Your task to perform on an android device: remove spam from my inbox in the gmail app Image 0: 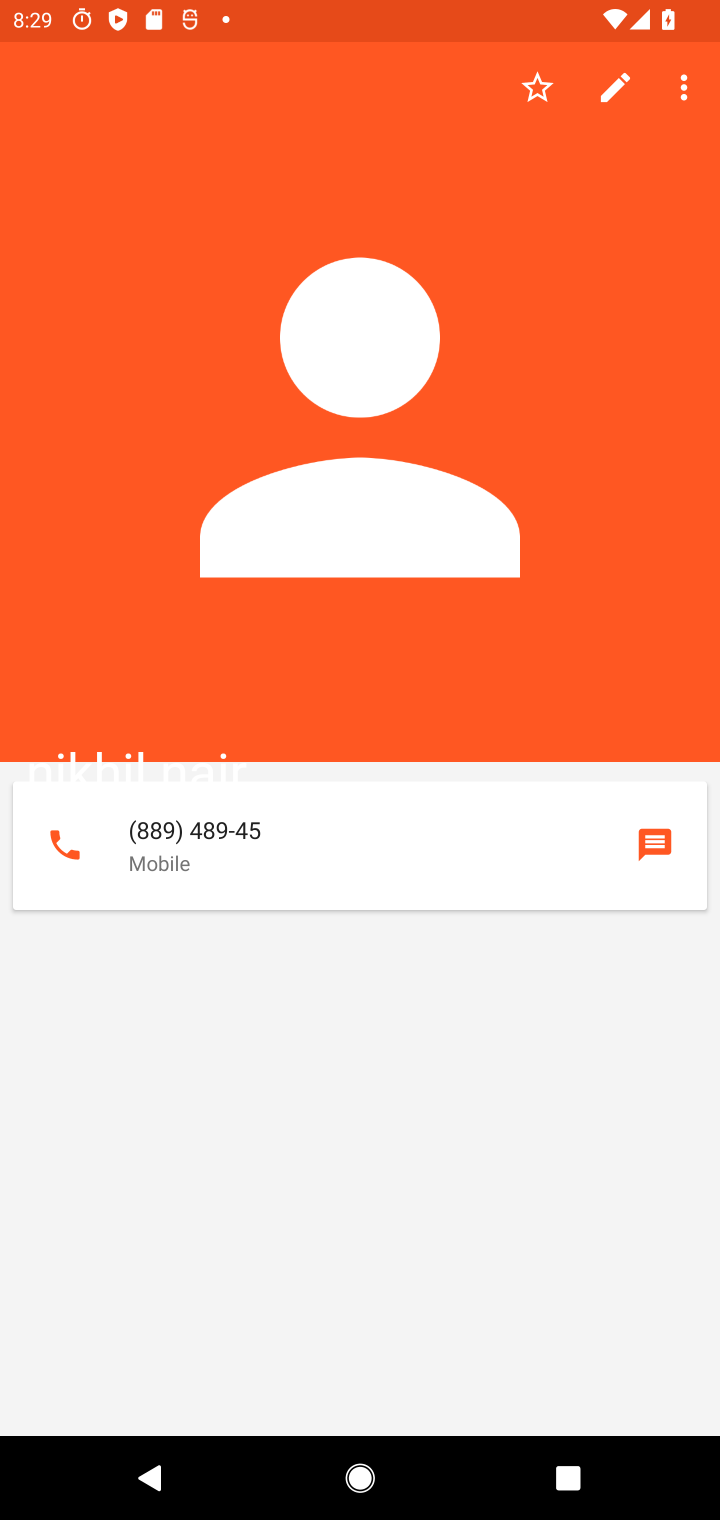
Step 0: press home button
Your task to perform on an android device: remove spam from my inbox in the gmail app Image 1: 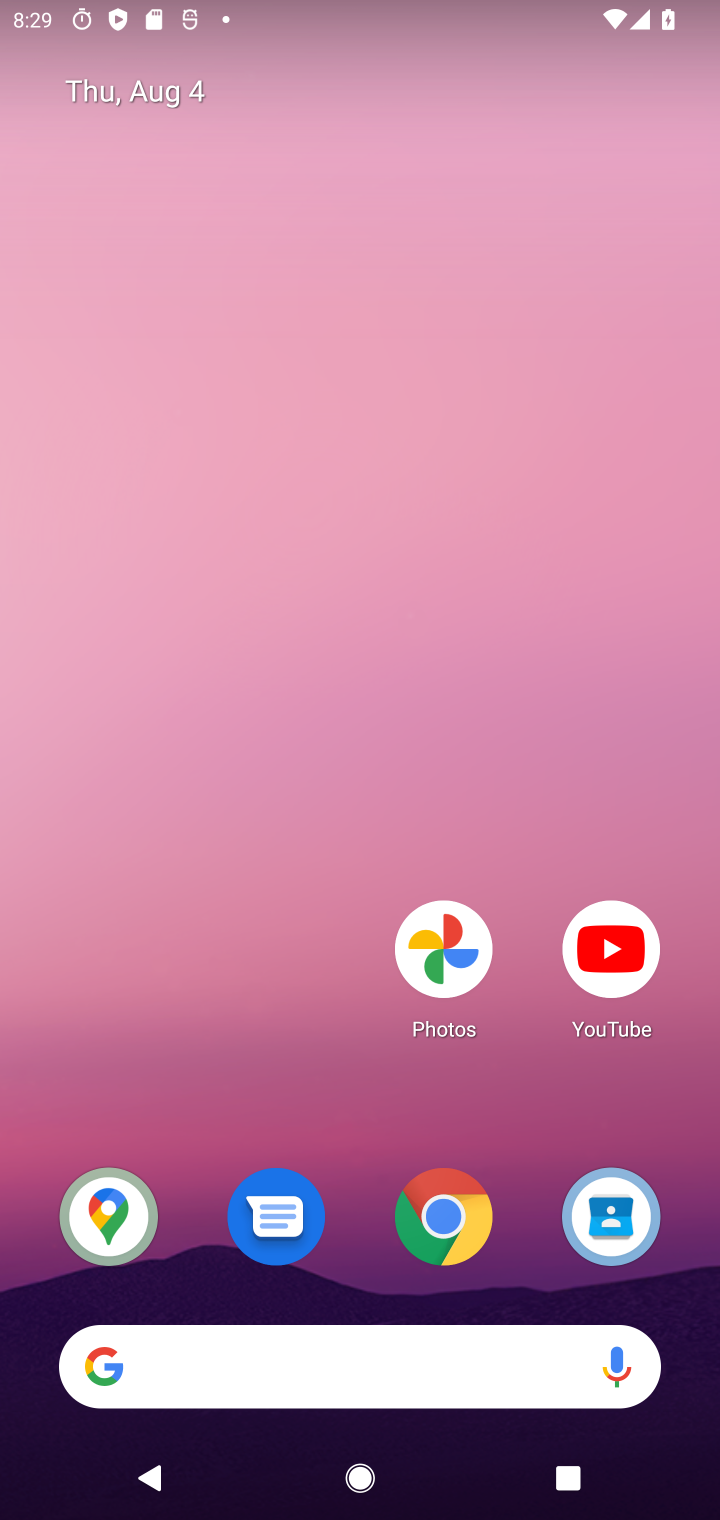
Step 1: drag from (344, 1233) to (292, 555)
Your task to perform on an android device: remove spam from my inbox in the gmail app Image 2: 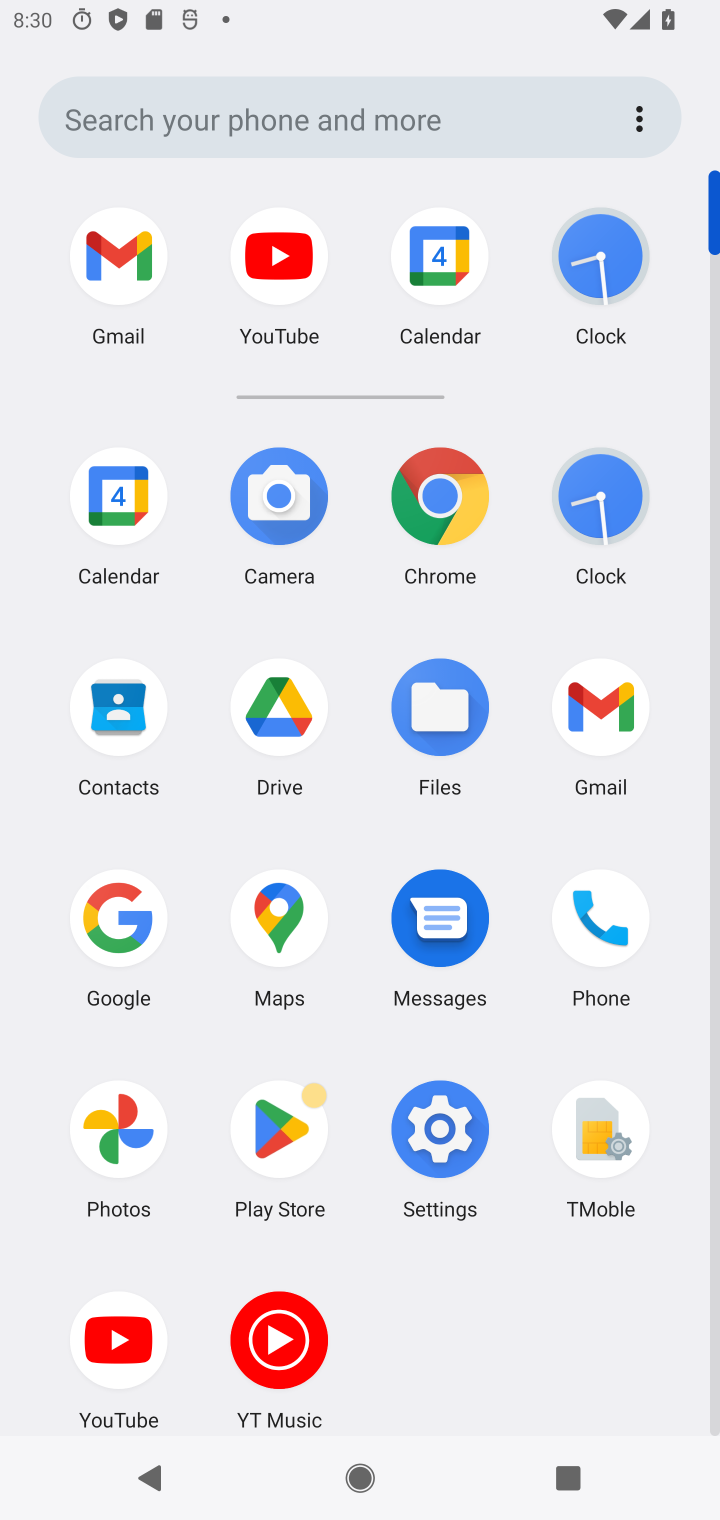
Step 2: click (600, 710)
Your task to perform on an android device: remove spam from my inbox in the gmail app Image 3: 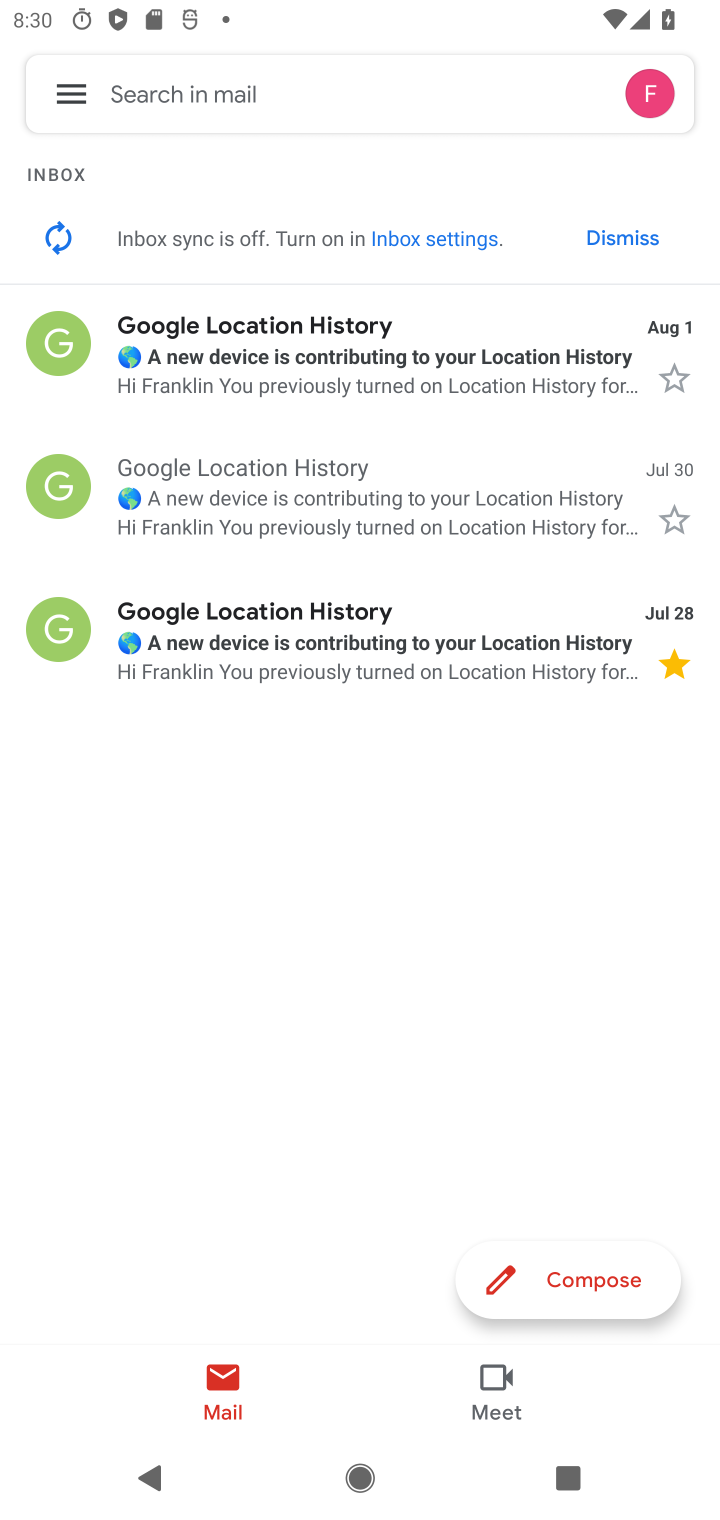
Step 3: task complete